Your task to perform on an android device: Open Chrome and go to the settings page Image 0: 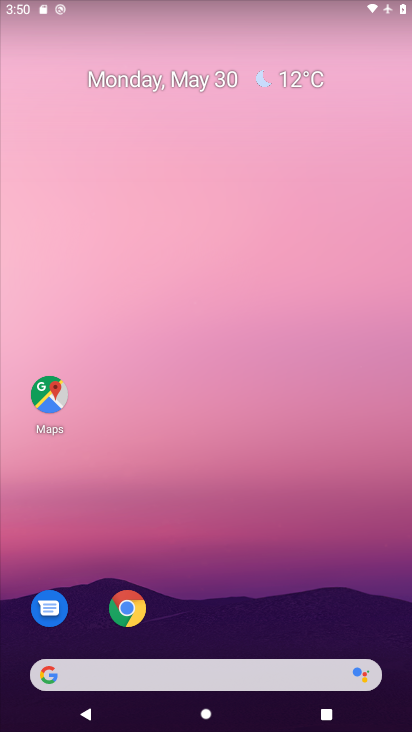
Step 0: click (140, 595)
Your task to perform on an android device: Open Chrome and go to the settings page Image 1: 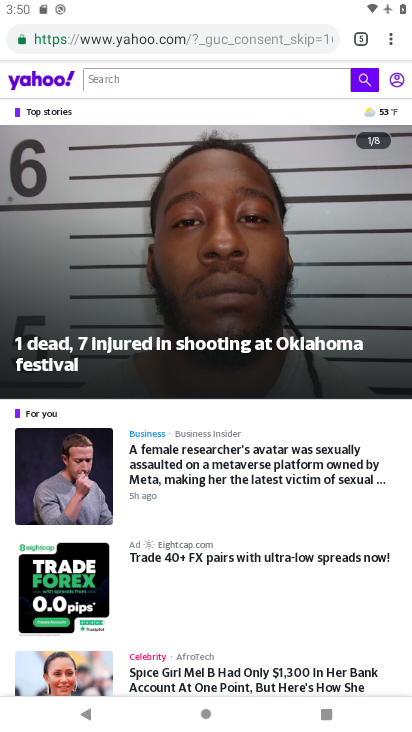
Step 1: click (396, 34)
Your task to perform on an android device: Open Chrome and go to the settings page Image 2: 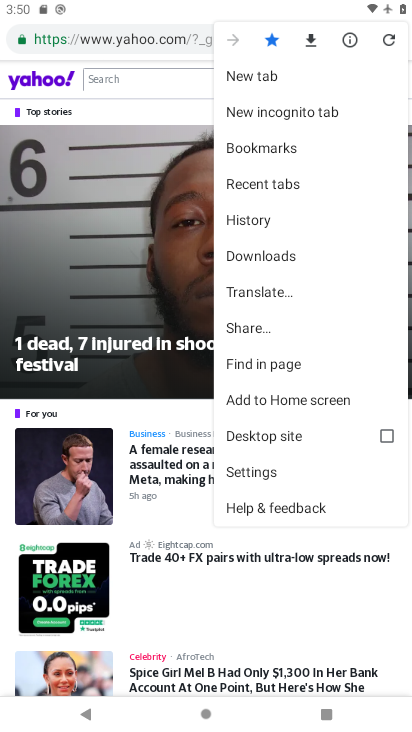
Step 2: click (291, 466)
Your task to perform on an android device: Open Chrome and go to the settings page Image 3: 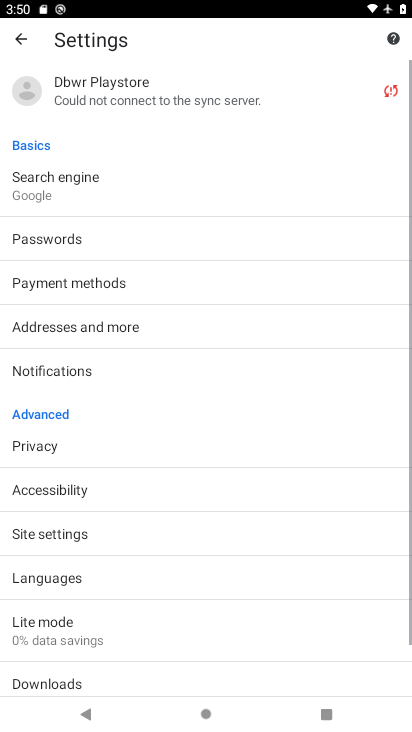
Step 3: task complete